Your task to perform on an android device: change the clock display to show seconds Image 0: 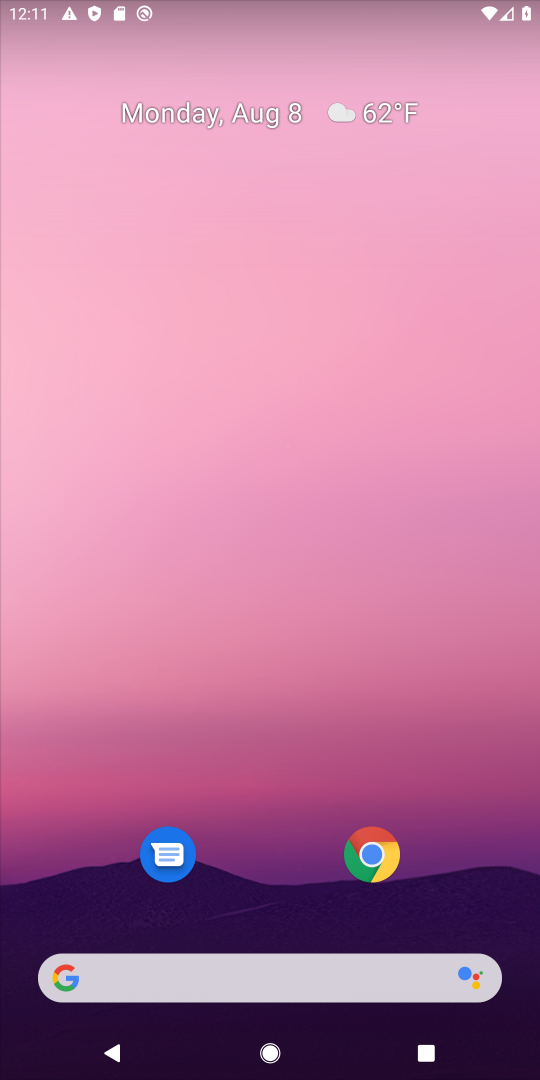
Step 0: drag from (271, 583) to (259, 14)
Your task to perform on an android device: change the clock display to show seconds Image 1: 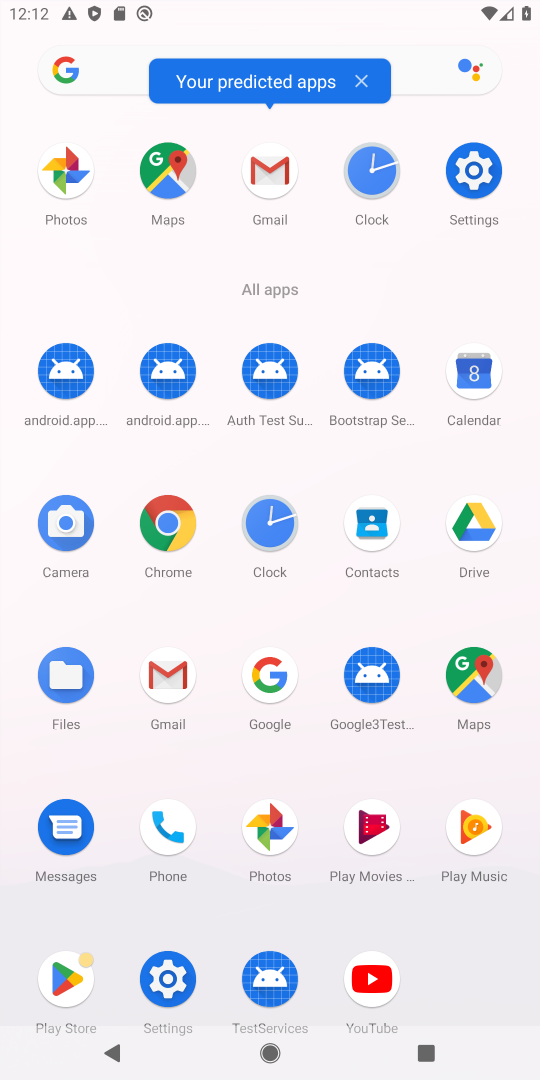
Step 1: click (364, 180)
Your task to perform on an android device: change the clock display to show seconds Image 2: 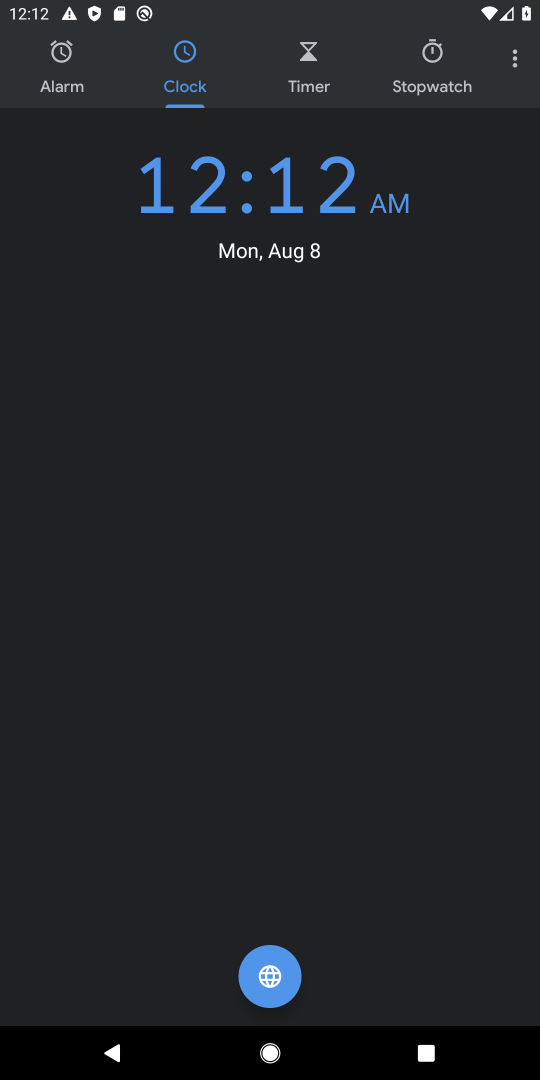
Step 2: click (517, 64)
Your task to perform on an android device: change the clock display to show seconds Image 3: 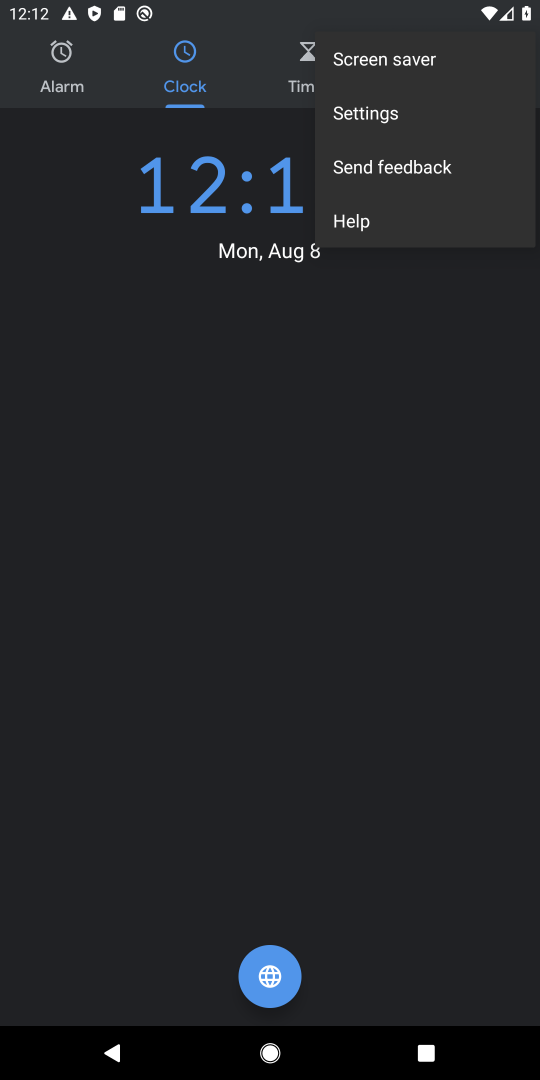
Step 3: click (351, 114)
Your task to perform on an android device: change the clock display to show seconds Image 4: 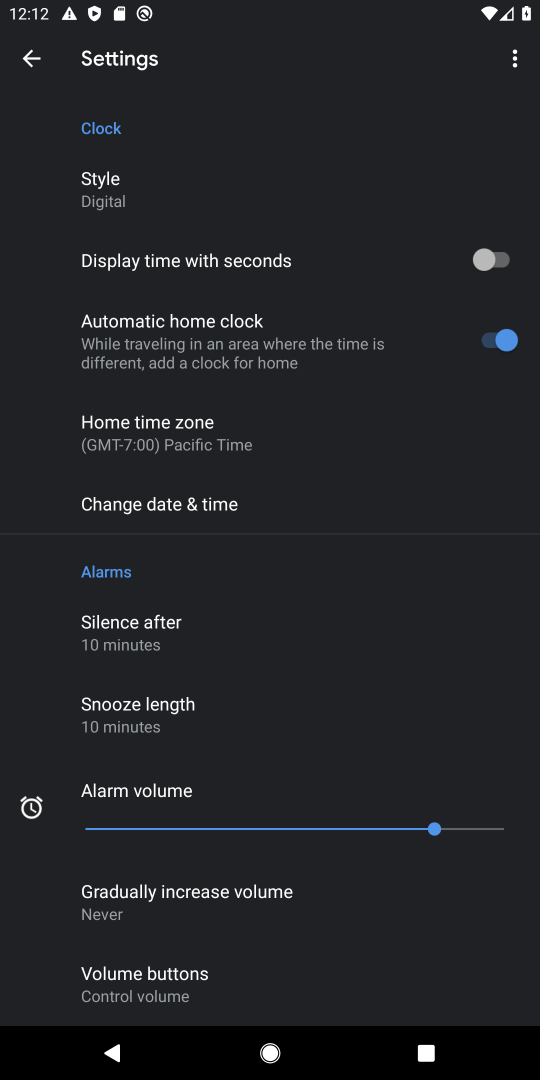
Step 4: click (489, 259)
Your task to perform on an android device: change the clock display to show seconds Image 5: 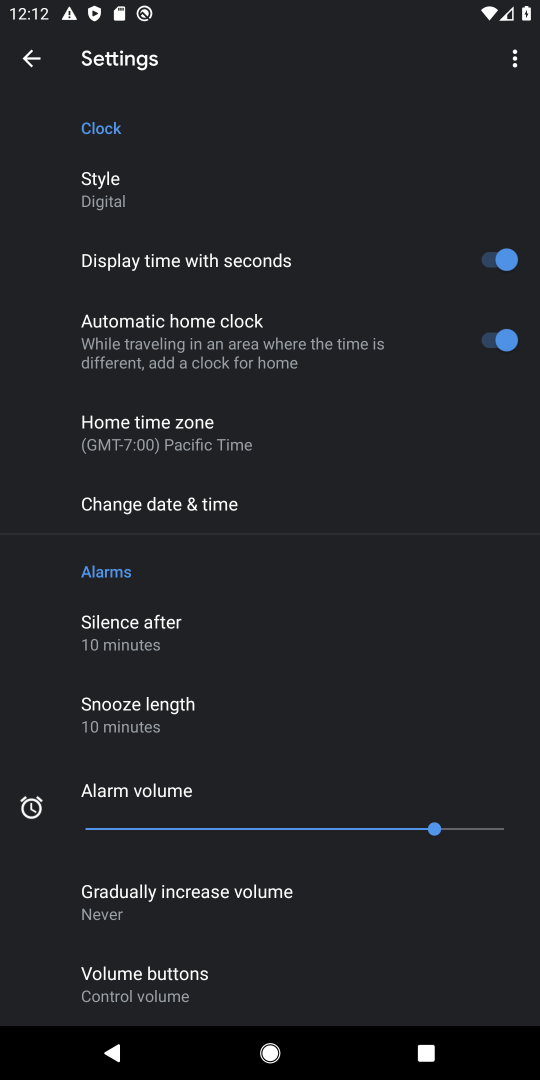
Step 5: task complete